Your task to perform on an android device: Open Google Image 0: 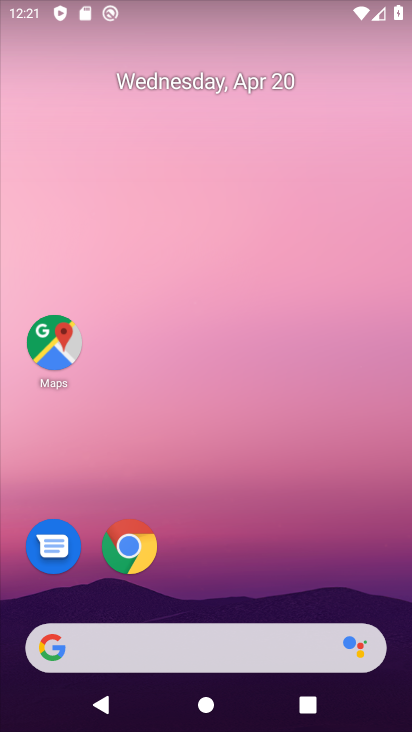
Step 0: drag from (191, 584) to (262, 82)
Your task to perform on an android device: Open Google Image 1: 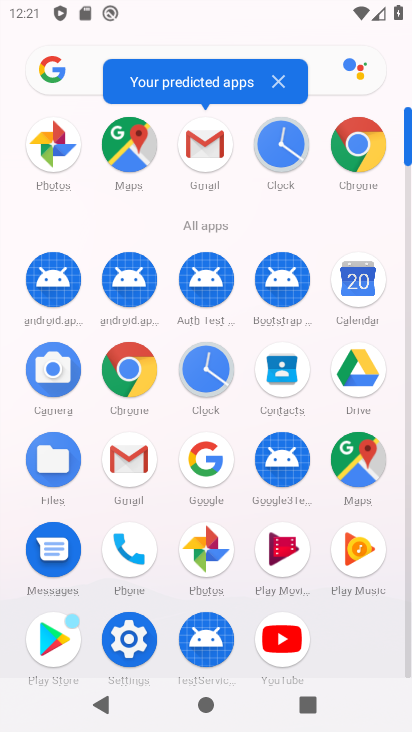
Step 1: click (213, 446)
Your task to perform on an android device: Open Google Image 2: 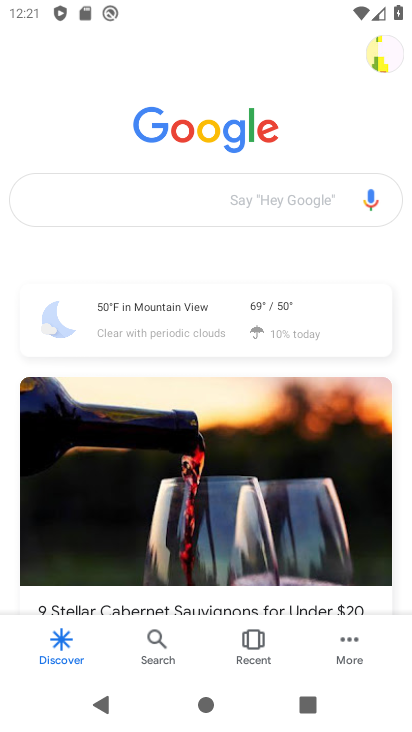
Step 2: task complete